Your task to perform on an android device: Open Youtube and go to "Your channel" Image 0: 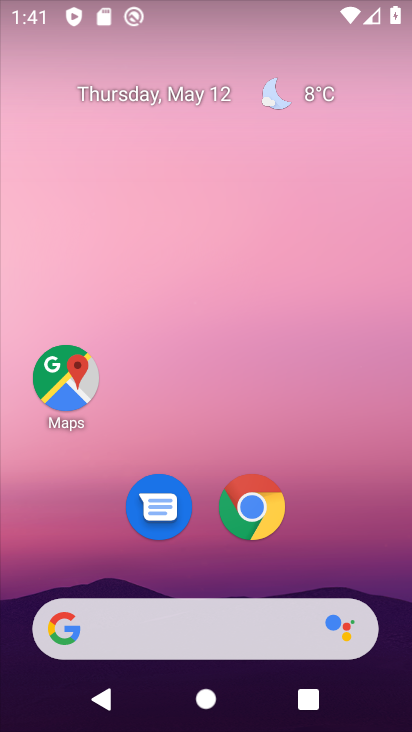
Step 0: drag from (223, 598) to (290, 224)
Your task to perform on an android device: Open Youtube and go to "Your channel" Image 1: 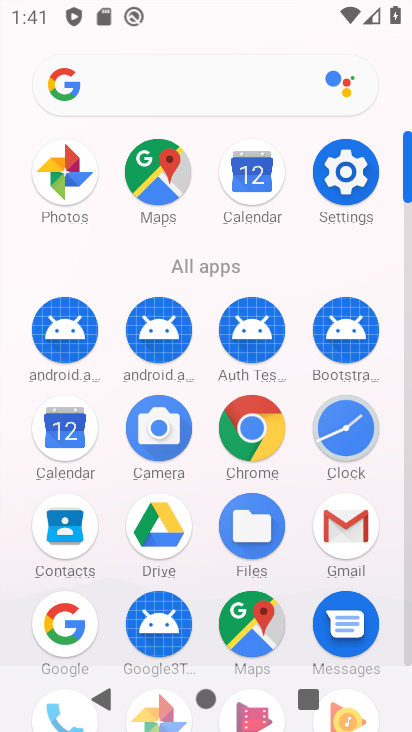
Step 1: drag from (220, 688) to (303, 319)
Your task to perform on an android device: Open Youtube and go to "Your channel" Image 2: 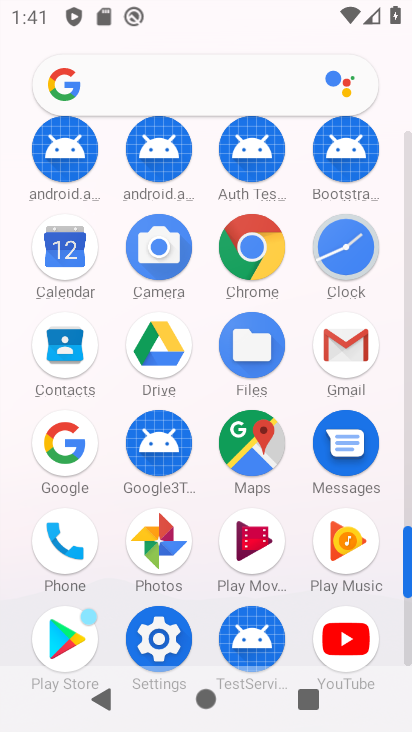
Step 2: click (339, 645)
Your task to perform on an android device: Open Youtube and go to "Your channel" Image 3: 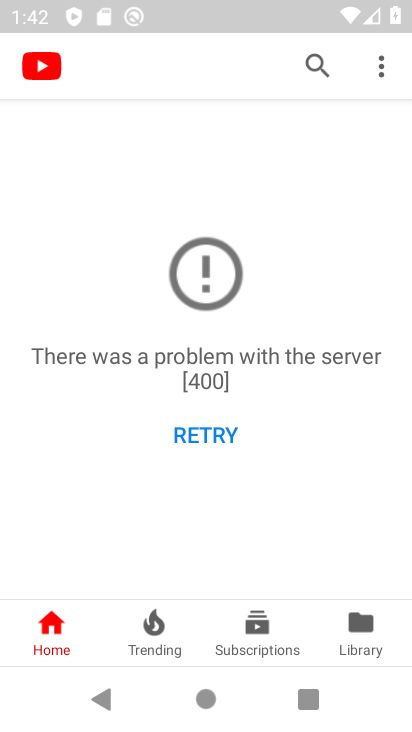
Step 3: click (371, 643)
Your task to perform on an android device: Open Youtube and go to "Your channel" Image 4: 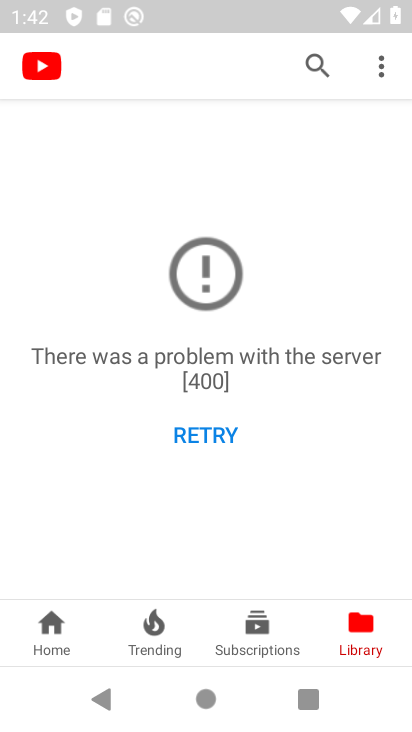
Step 4: task complete